Your task to perform on an android device: install app "VLC for Android" Image 0: 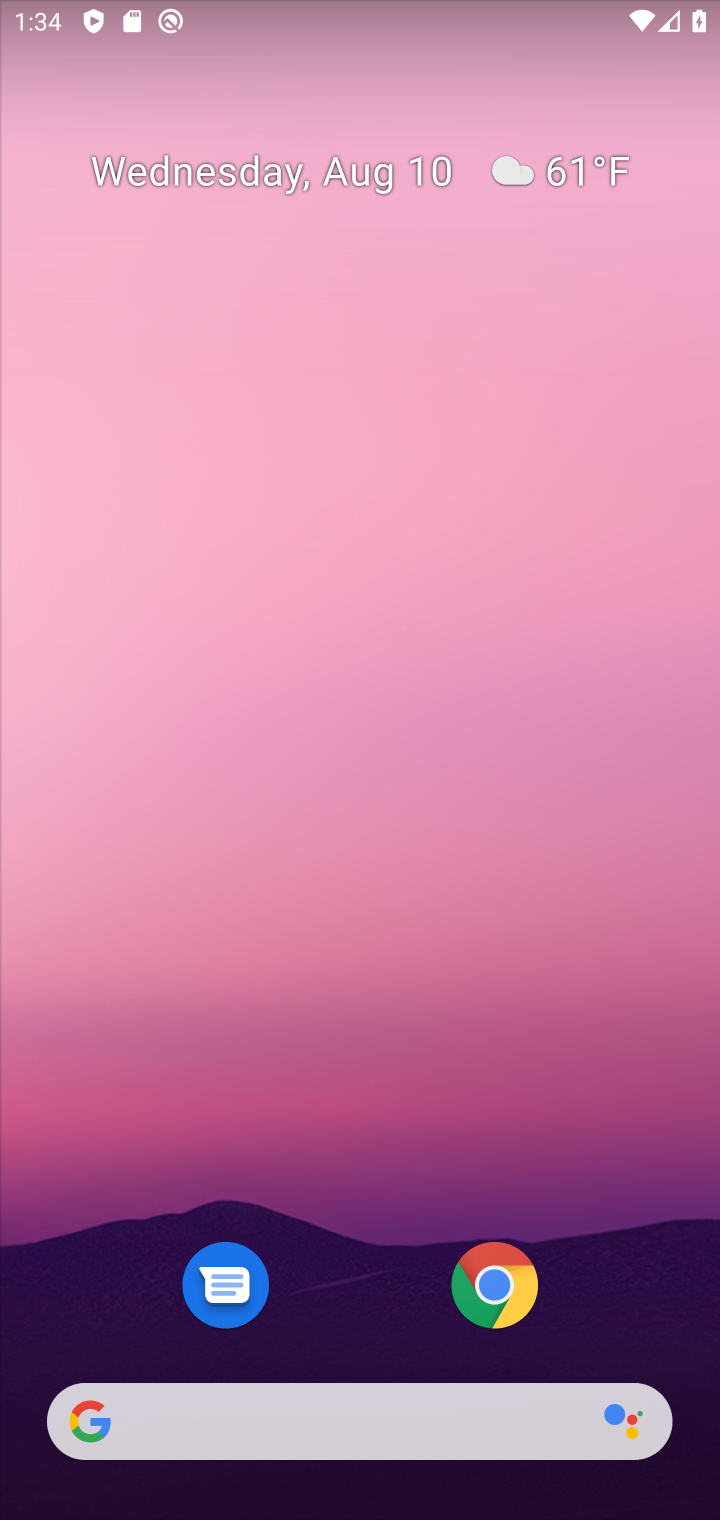
Step 0: drag from (644, 1244) to (515, 16)
Your task to perform on an android device: install app "VLC for Android" Image 1: 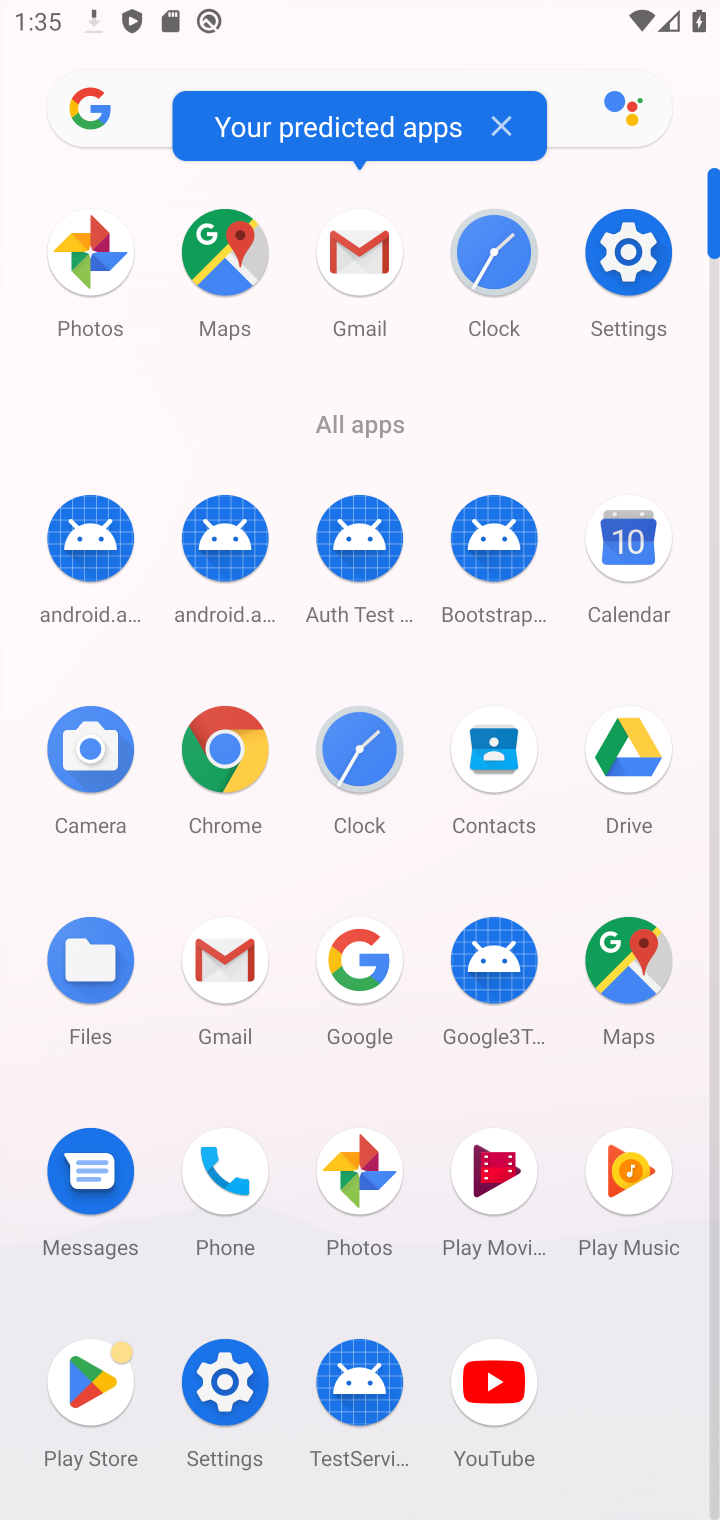
Step 1: click (113, 1355)
Your task to perform on an android device: install app "VLC for Android" Image 2: 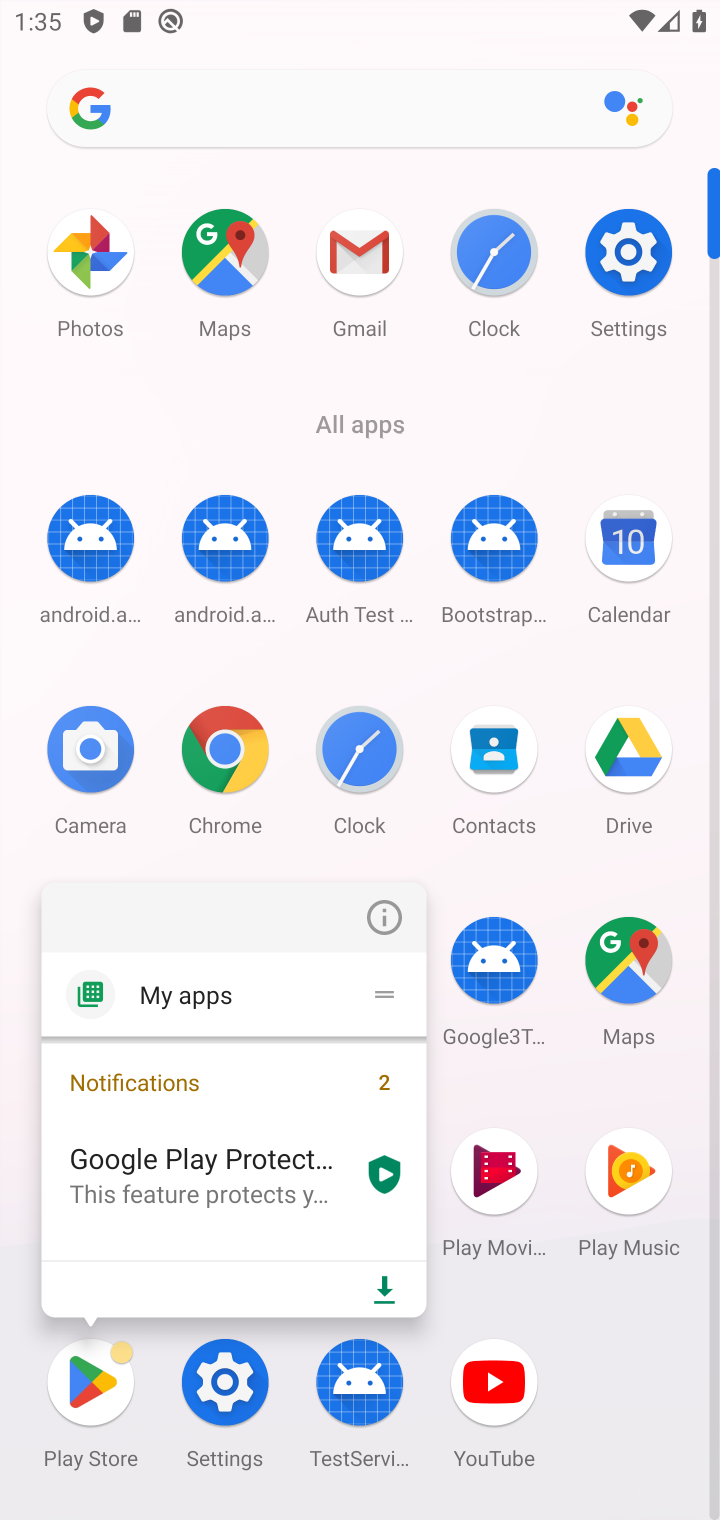
Step 2: click (100, 1379)
Your task to perform on an android device: install app "VLC for Android" Image 3: 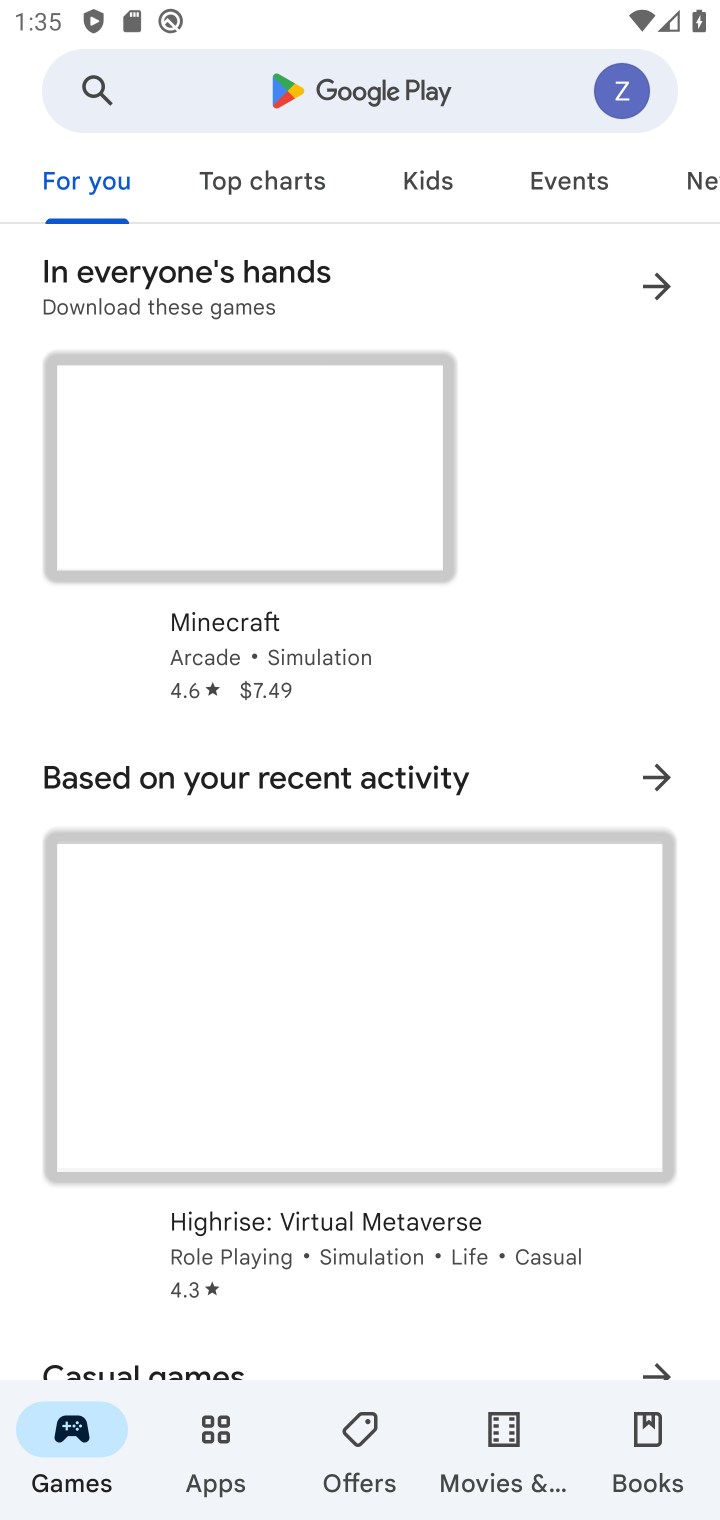
Step 3: click (313, 106)
Your task to perform on an android device: install app "VLC for Android" Image 4: 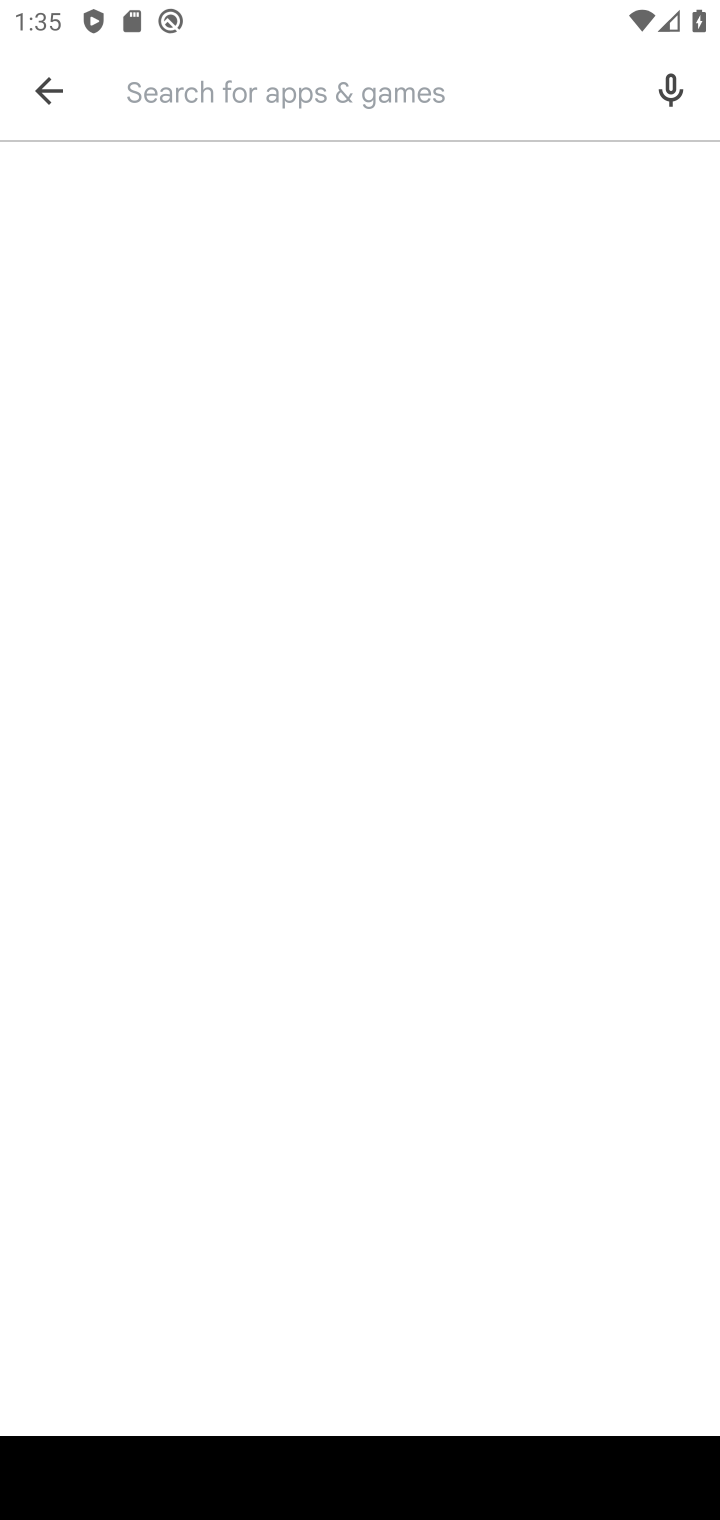
Step 4: type "vlc for android"
Your task to perform on an android device: install app "VLC for Android" Image 5: 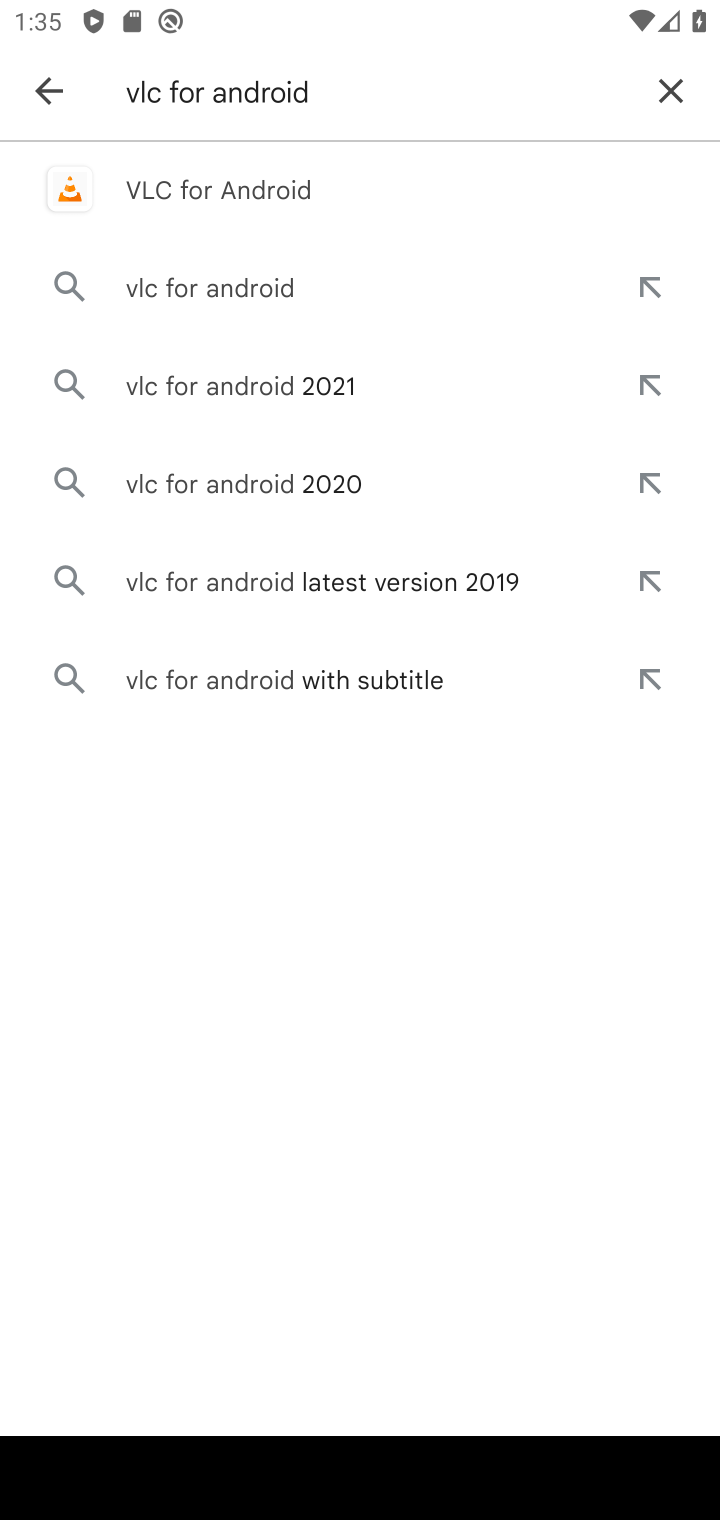
Step 5: click (365, 173)
Your task to perform on an android device: install app "VLC for Android" Image 6: 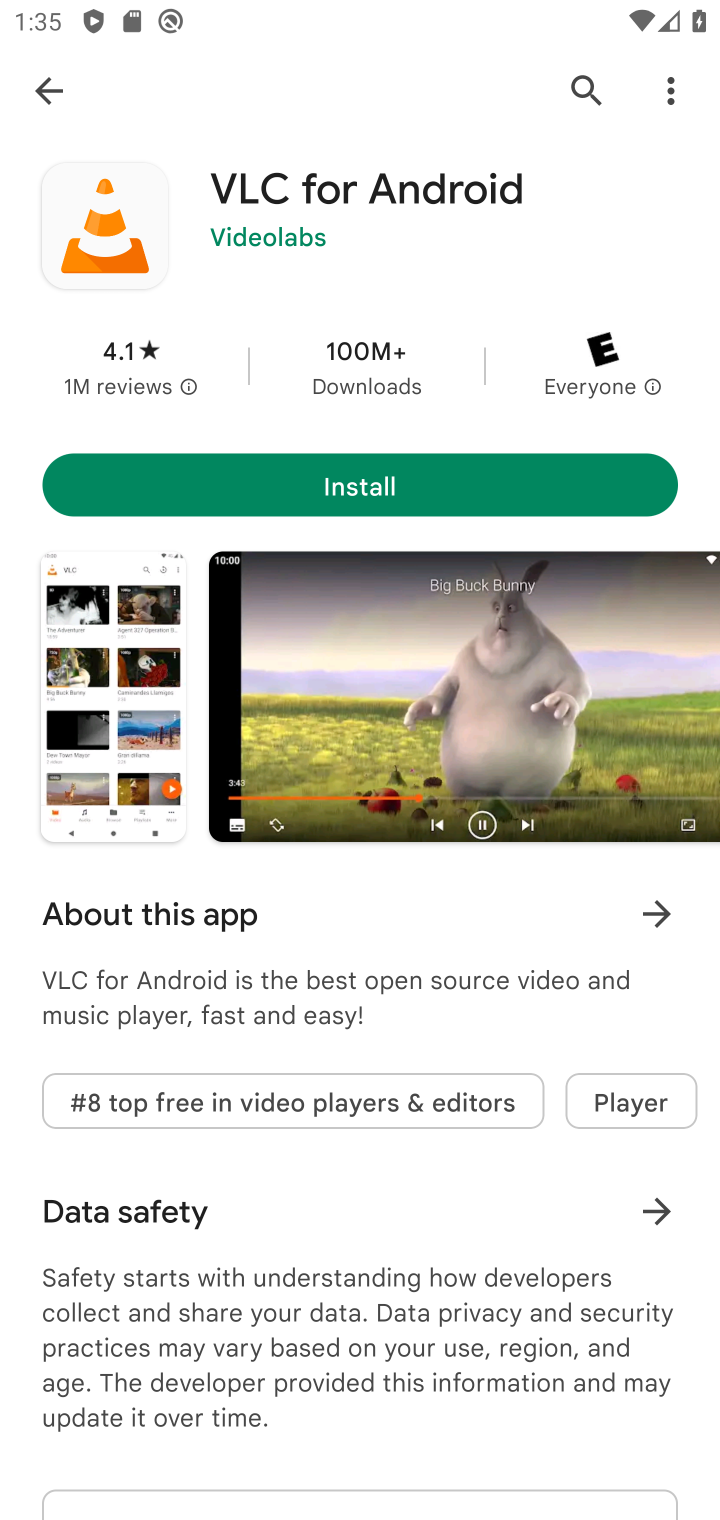
Step 6: click (411, 481)
Your task to perform on an android device: install app "VLC for Android" Image 7: 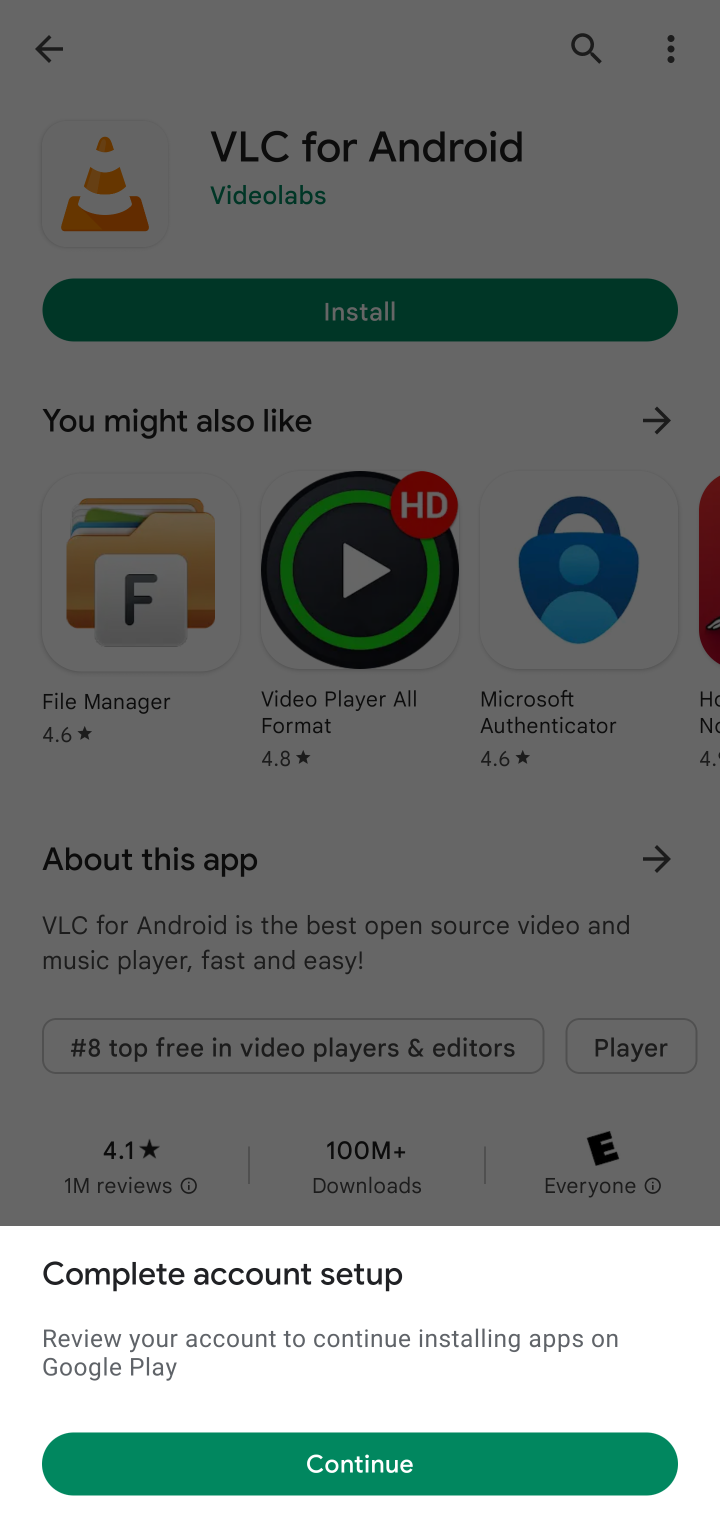
Step 7: click (365, 1472)
Your task to perform on an android device: install app "VLC for Android" Image 8: 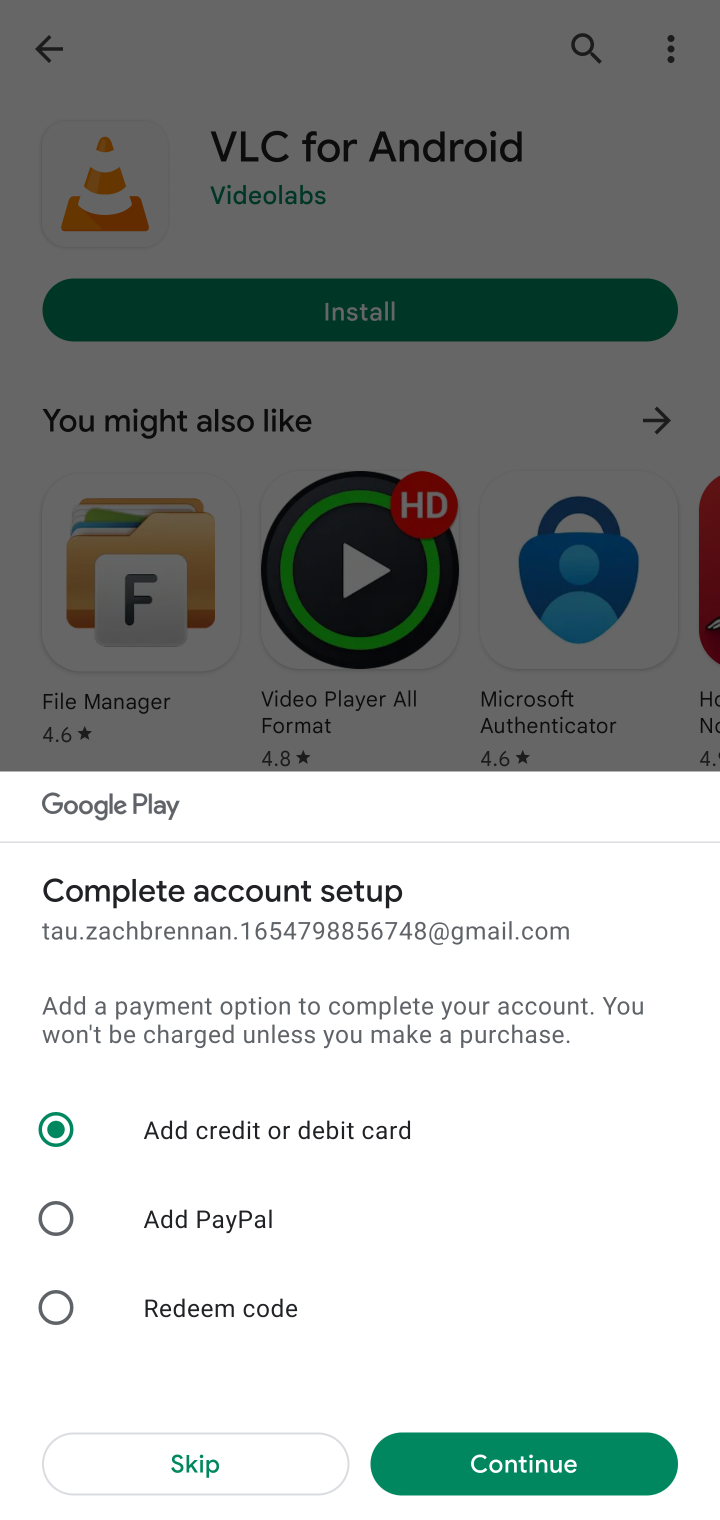
Step 8: click (237, 1489)
Your task to perform on an android device: install app "VLC for Android" Image 9: 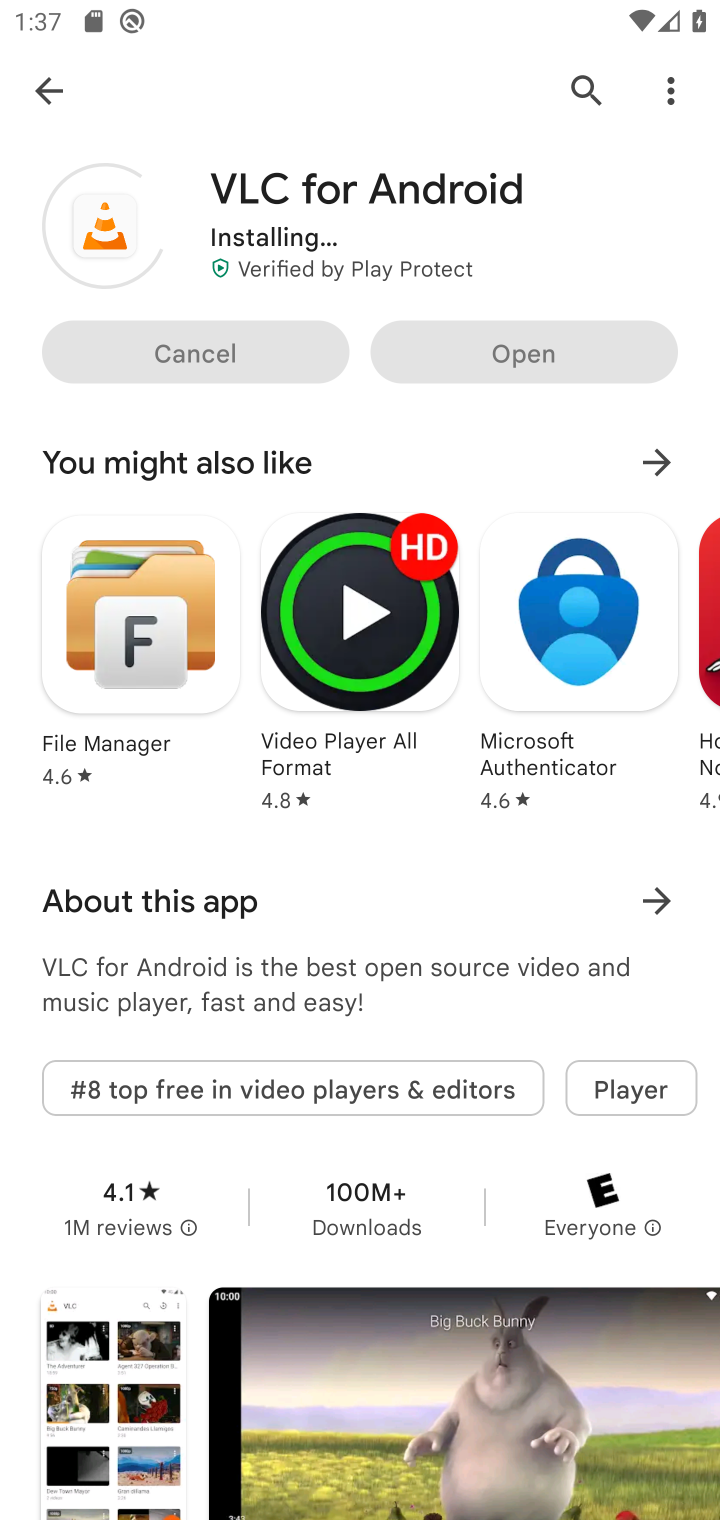
Step 9: task complete